Your task to perform on an android device: show emergency info Image 0: 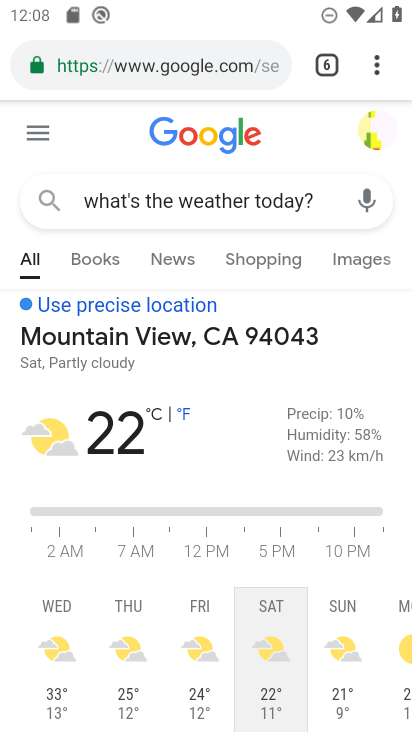
Step 0: press home button
Your task to perform on an android device: show emergency info Image 1: 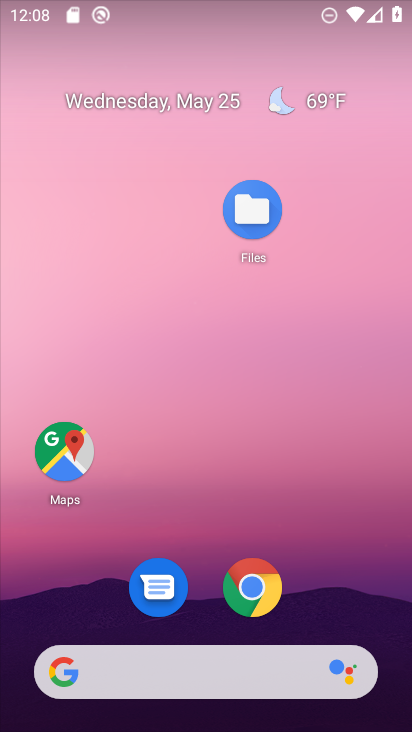
Step 1: drag from (319, 587) to (67, 194)
Your task to perform on an android device: show emergency info Image 2: 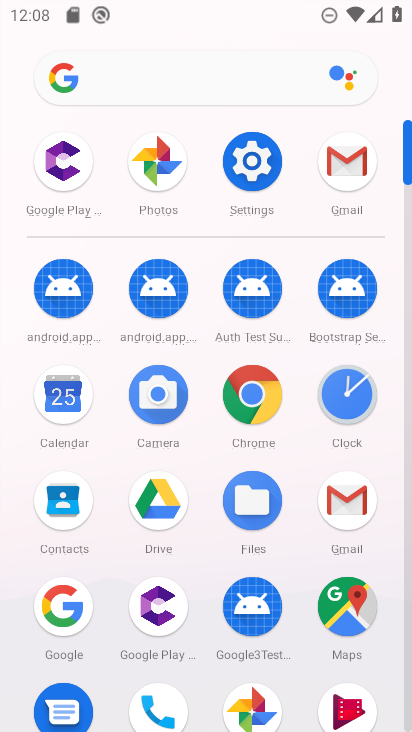
Step 2: click (254, 160)
Your task to perform on an android device: show emergency info Image 3: 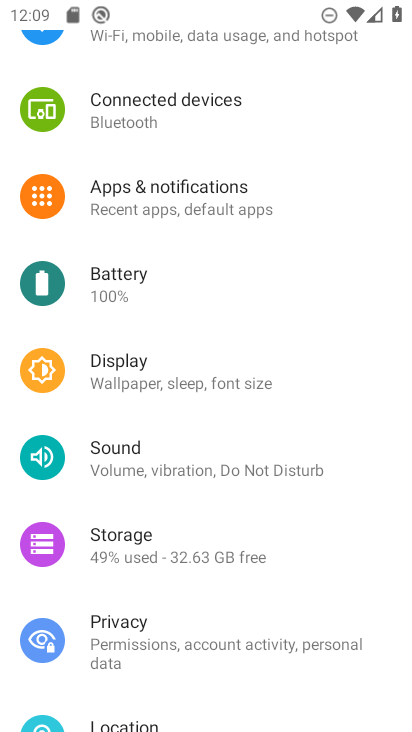
Step 3: drag from (223, 671) to (203, 182)
Your task to perform on an android device: show emergency info Image 4: 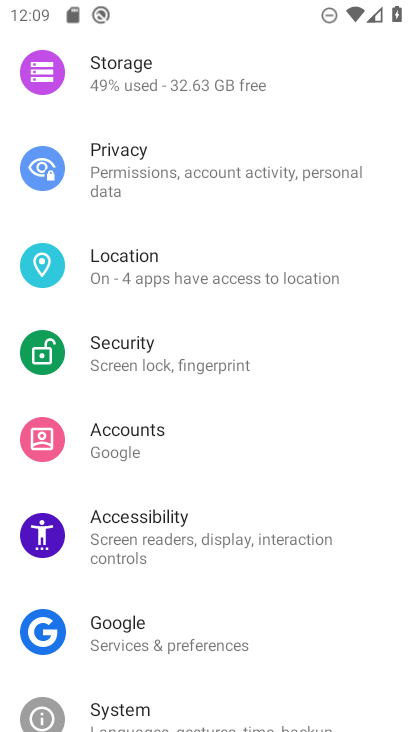
Step 4: drag from (246, 684) to (253, 245)
Your task to perform on an android device: show emergency info Image 5: 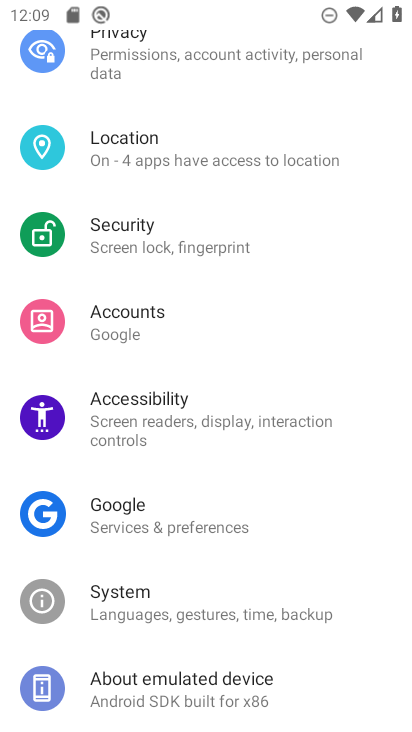
Step 5: click (126, 689)
Your task to perform on an android device: show emergency info Image 6: 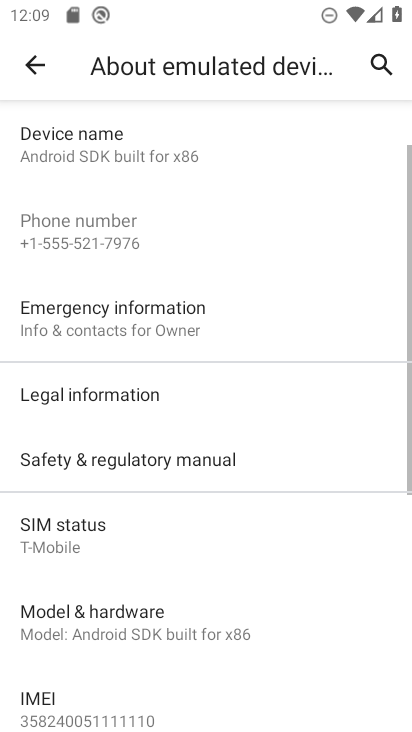
Step 6: click (204, 329)
Your task to perform on an android device: show emergency info Image 7: 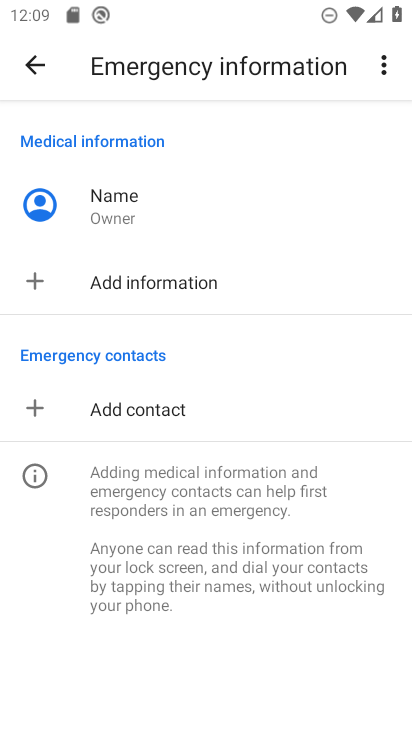
Step 7: task complete